Your task to perform on an android device: Open Google Chrome and click the shortcut for Amazon.com Image 0: 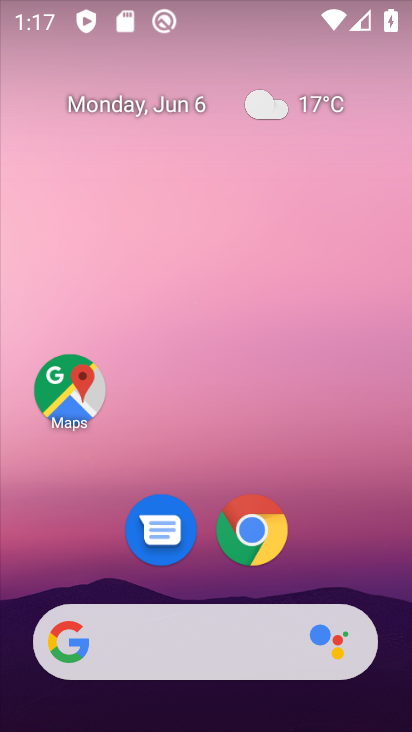
Step 0: click (260, 513)
Your task to perform on an android device: Open Google Chrome and click the shortcut for Amazon.com Image 1: 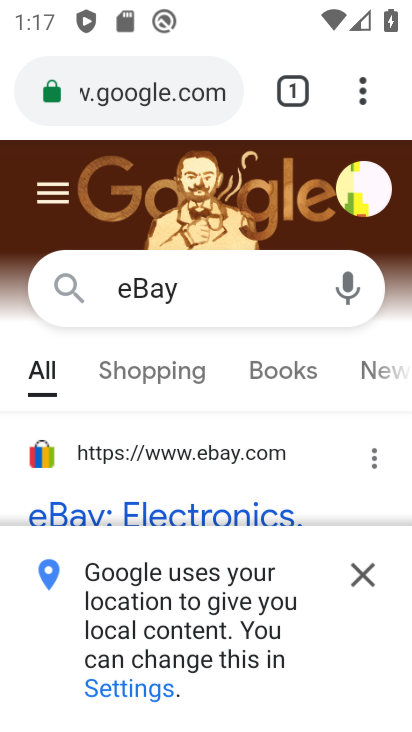
Step 1: click (359, 70)
Your task to perform on an android device: Open Google Chrome and click the shortcut for Amazon.com Image 2: 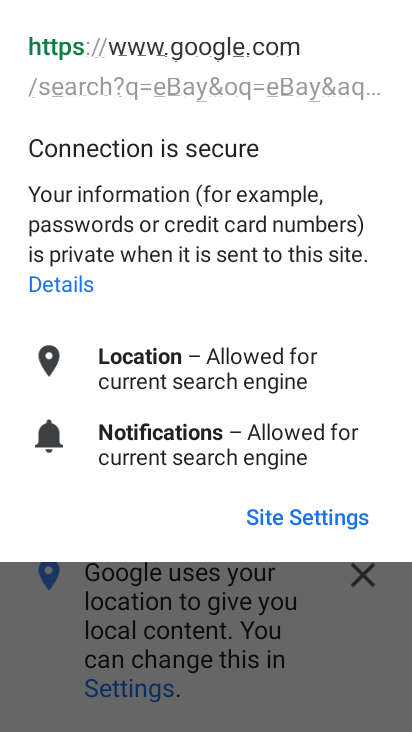
Step 2: click (339, 511)
Your task to perform on an android device: Open Google Chrome and click the shortcut for Amazon.com Image 3: 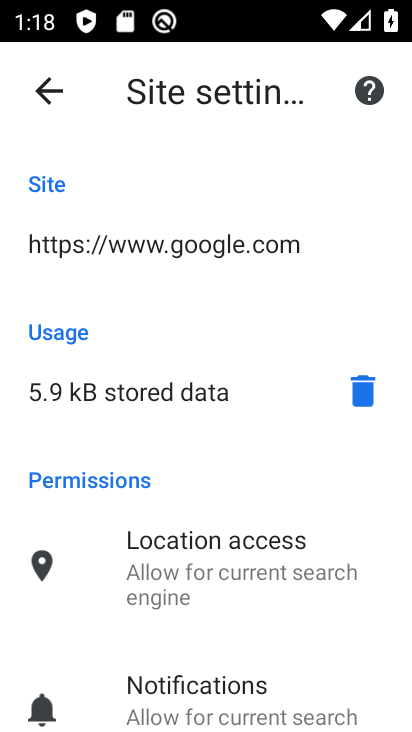
Step 3: click (38, 103)
Your task to perform on an android device: Open Google Chrome and click the shortcut for Amazon.com Image 4: 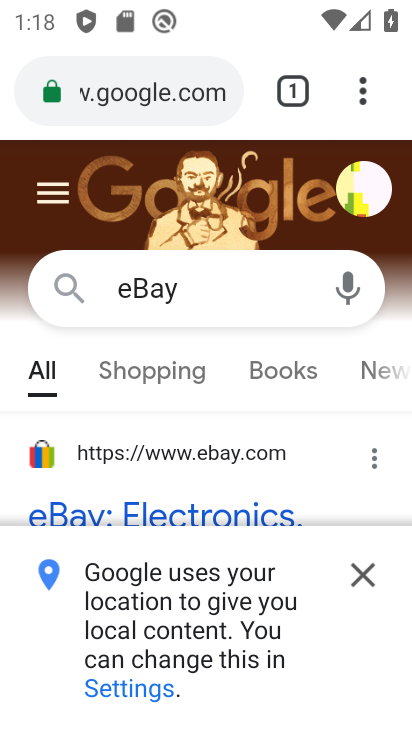
Step 4: click (358, 93)
Your task to perform on an android device: Open Google Chrome and click the shortcut for Amazon.com Image 5: 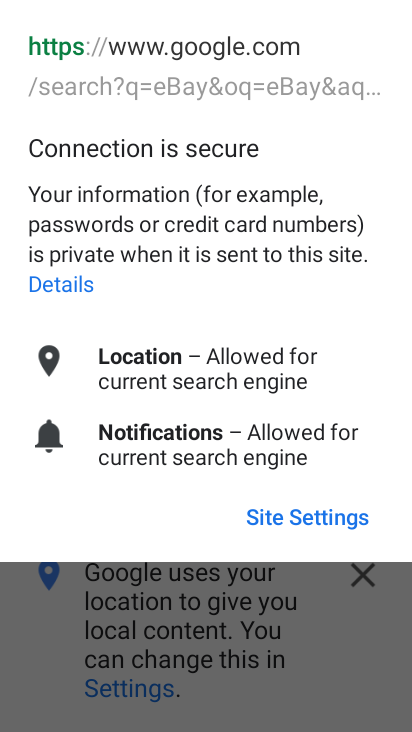
Step 5: click (295, 508)
Your task to perform on an android device: Open Google Chrome and click the shortcut for Amazon.com Image 6: 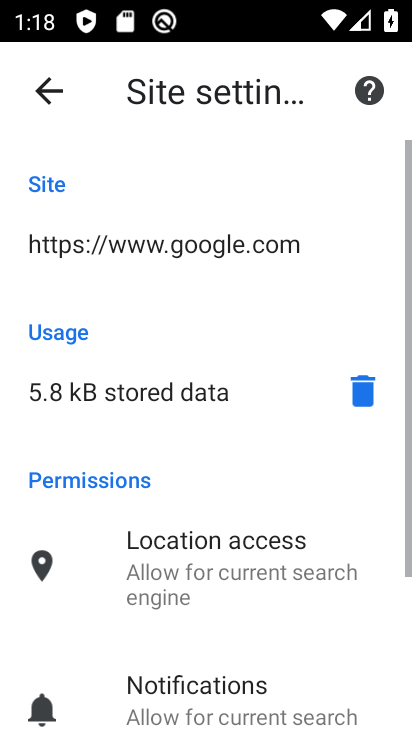
Step 6: click (49, 85)
Your task to perform on an android device: Open Google Chrome and click the shortcut for Amazon.com Image 7: 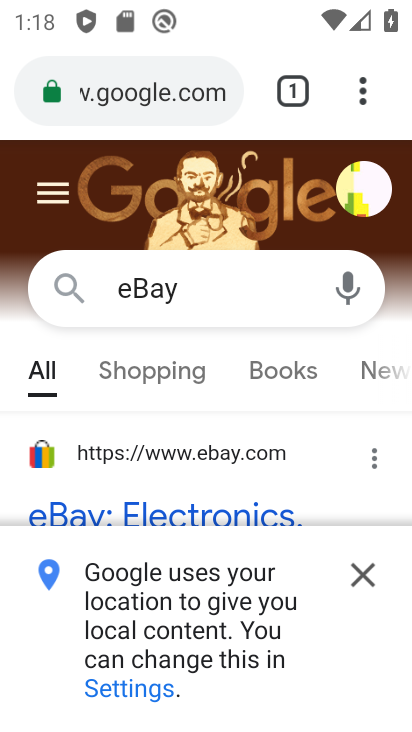
Step 7: click (343, 81)
Your task to perform on an android device: Open Google Chrome and click the shortcut for Amazon.com Image 8: 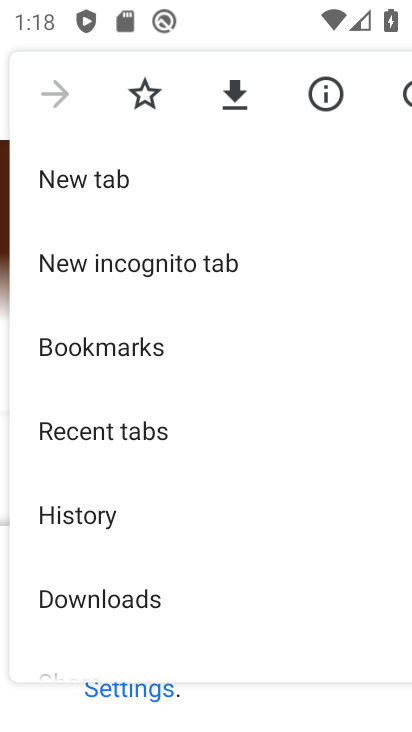
Step 8: click (52, 188)
Your task to perform on an android device: Open Google Chrome and click the shortcut for Amazon.com Image 9: 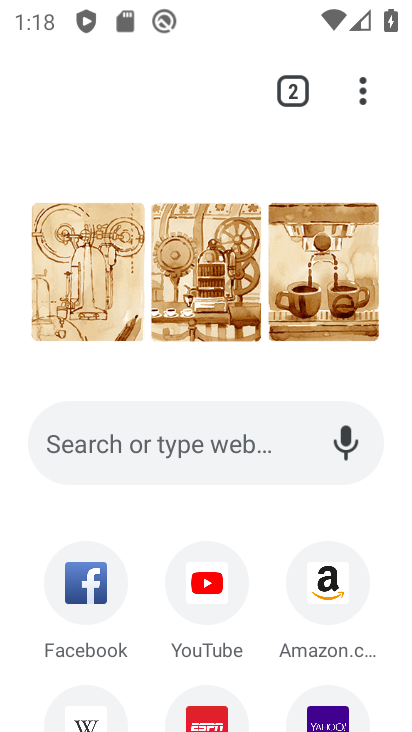
Step 9: click (325, 572)
Your task to perform on an android device: Open Google Chrome and click the shortcut for Amazon.com Image 10: 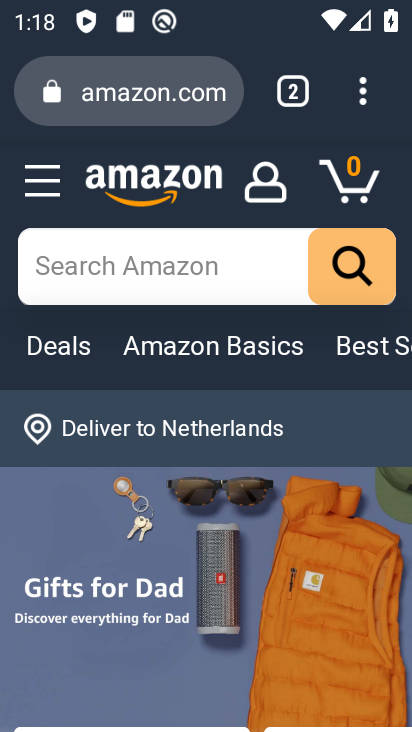
Step 10: task complete